Your task to perform on an android device: Open Wikipedia Image 0: 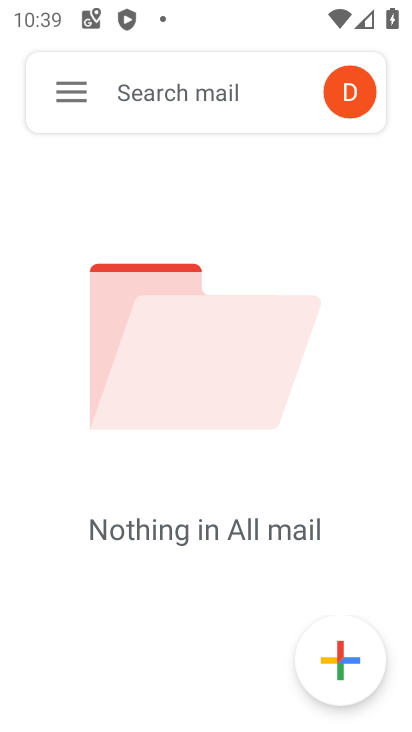
Step 0: press home button
Your task to perform on an android device: Open Wikipedia Image 1: 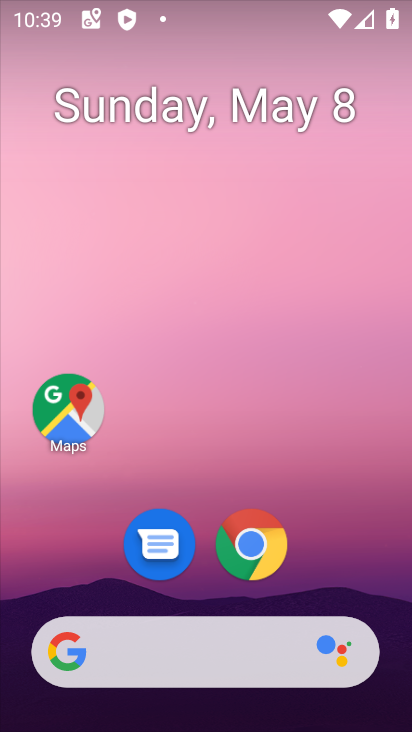
Step 1: drag from (302, 502) to (329, 104)
Your task to perform on an android device: Open Wikipedia Image 2: 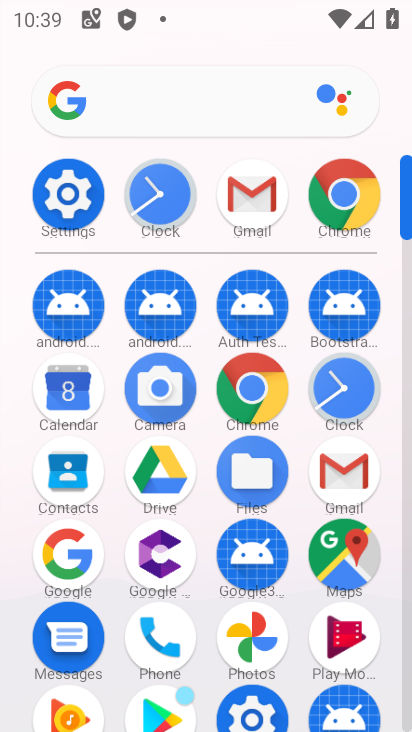
Step 2: click (331, 204)
Your task to perform on an android device: Open Wikipedia Image 3: 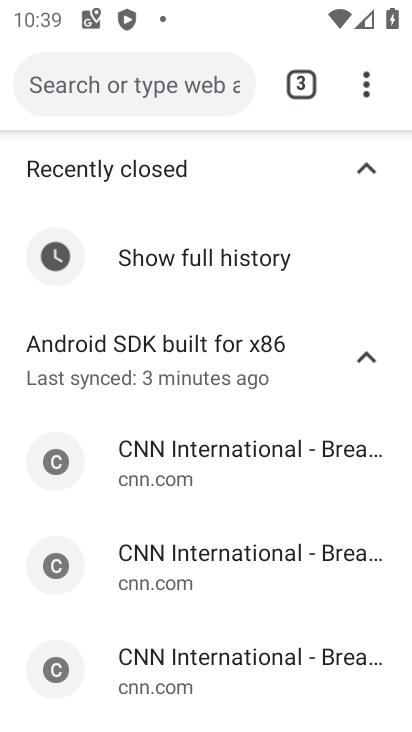
Step 3: press back button
Your task to perform on an android device: Open Wikipedia Image 4: 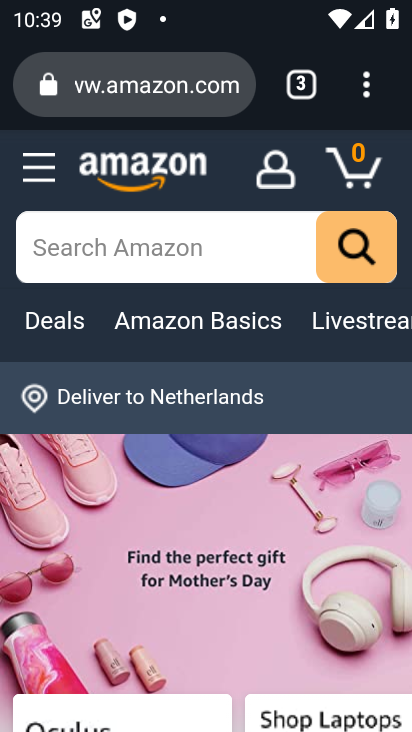
Step 4: press back button
Your task to perform on an android device: Open Wikipedia Image 5: 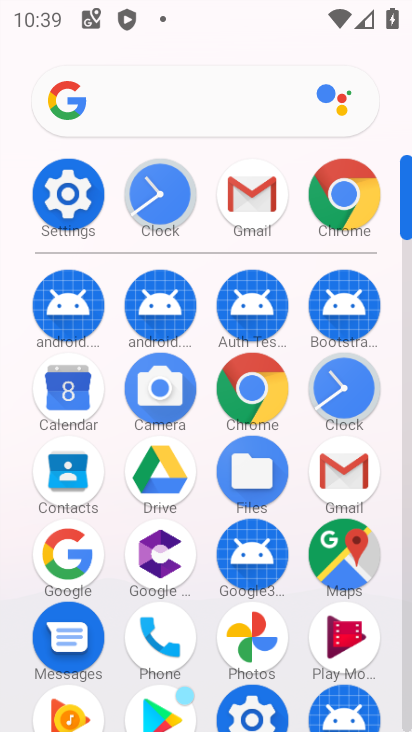
Step 5: click (323, 216)
Your task to perform on an android device: Open Wikipedia Image 6: 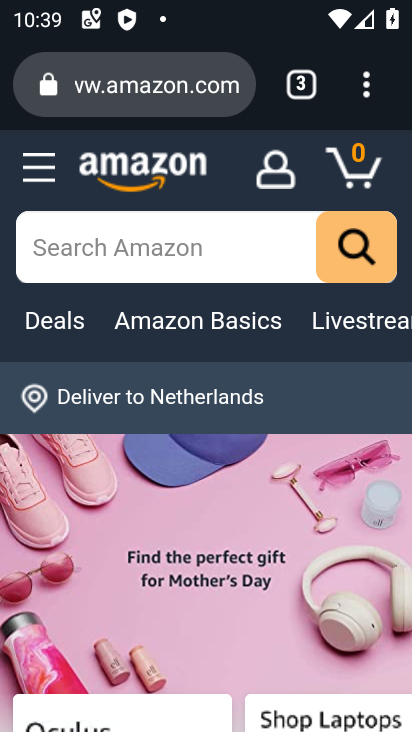
Step 6: click (299, 102)
Your task to perform on an android device: Open Wikipedia Image 7: 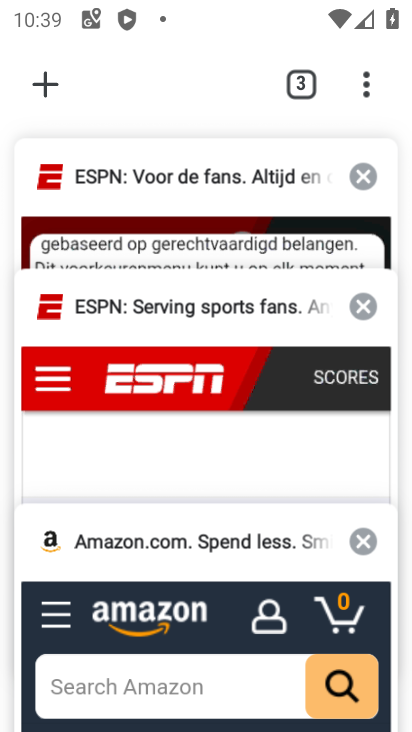
Step 7: click (52, 81)
Your task to perform on an android device: Open Wikipedia Image 8: 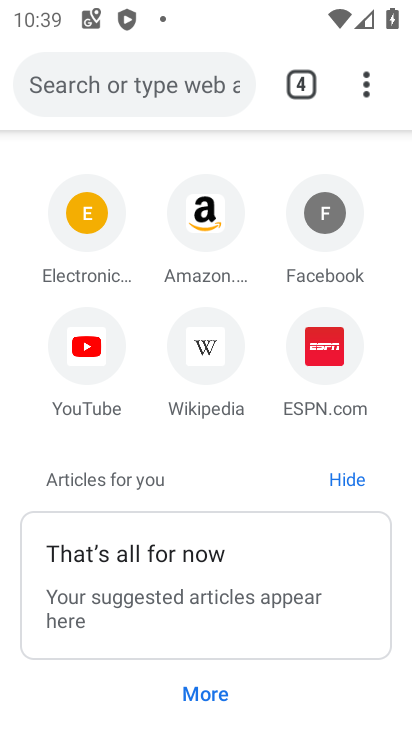
Step 8: click (261, 403)
Your task to perform on an android device: Open Wikipedia Image 9: 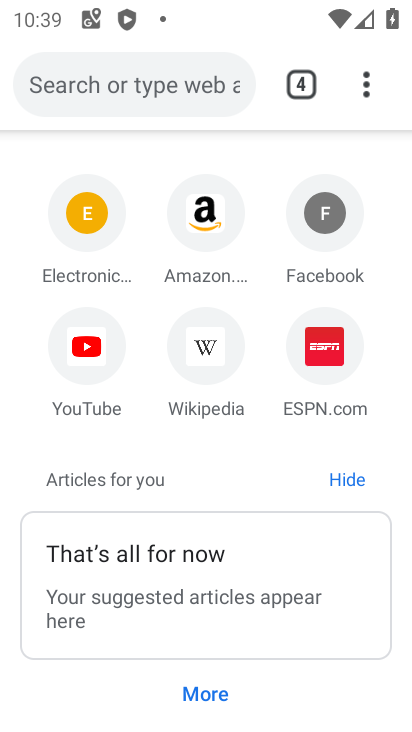
Step 9: click (237, 399)
Your task to perform on an android device: Open Wikipedia Image 10: 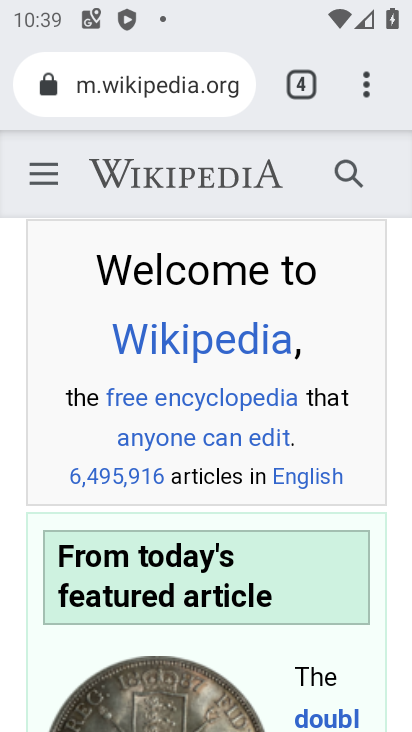
Step 10: task complete